Your task to perform on an android device: change notification settings in the gmail app Image 0: 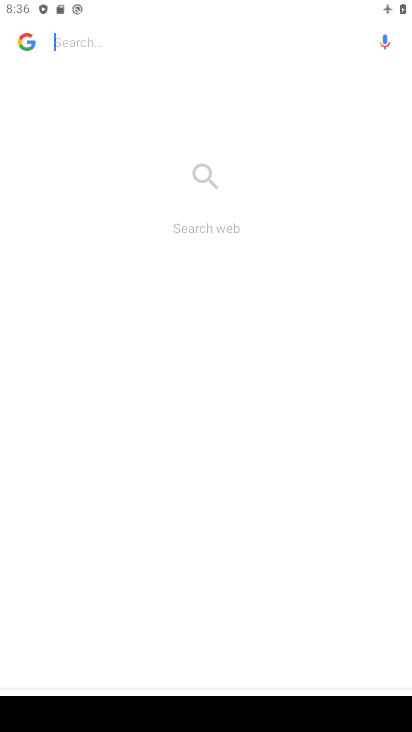
Step 0: press home button
Your task to perform on an android device: change notification settings in the gmail app Image 1: 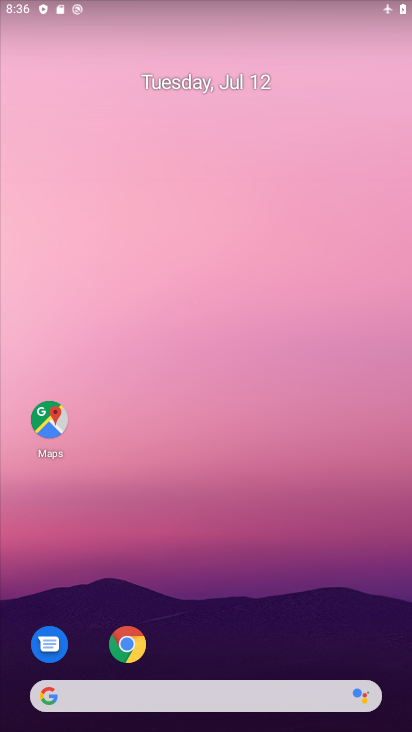
Step 1: drag from (198, 650) to (195, 225)
Your task to perform on an android device: change notification settings in the gmail app Image 2: 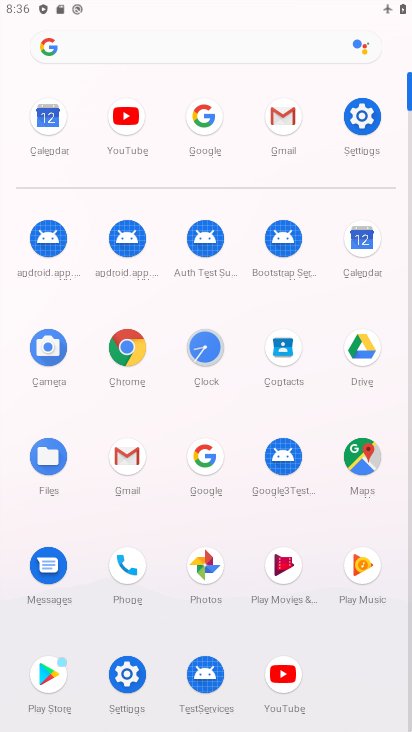
Step 2: click (279, 107)
Your task to perform on an android device: change notification settings in the gmail app Image 3: 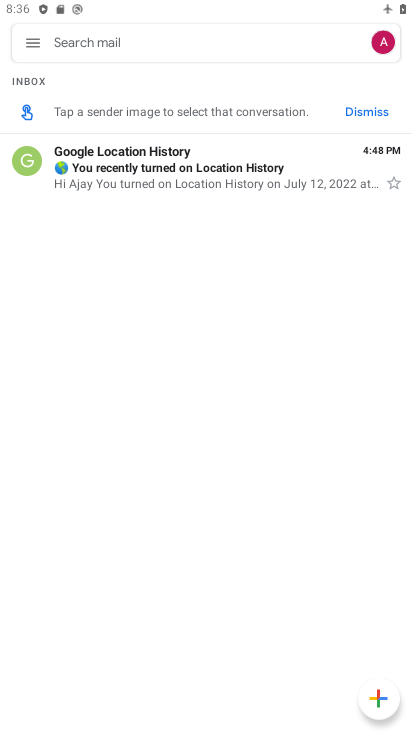
Step 3: click (39, 44)
Your task to perform on an android device: change notification settings in the gmail app Image 4: 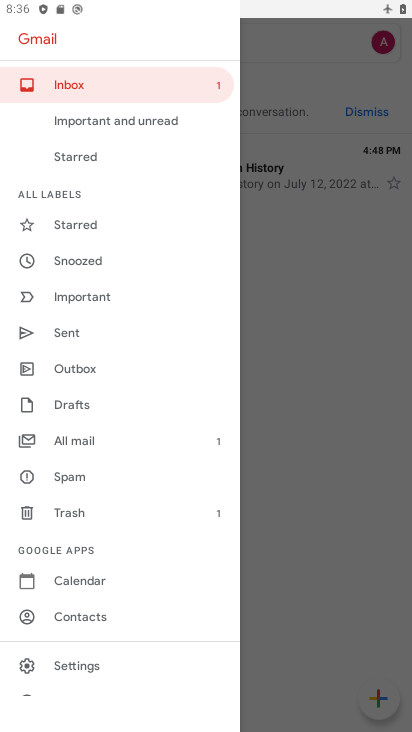
Step 4: click (113, 659)
Your task to perform on an android device: change notification settings in the gmail app Image 5: 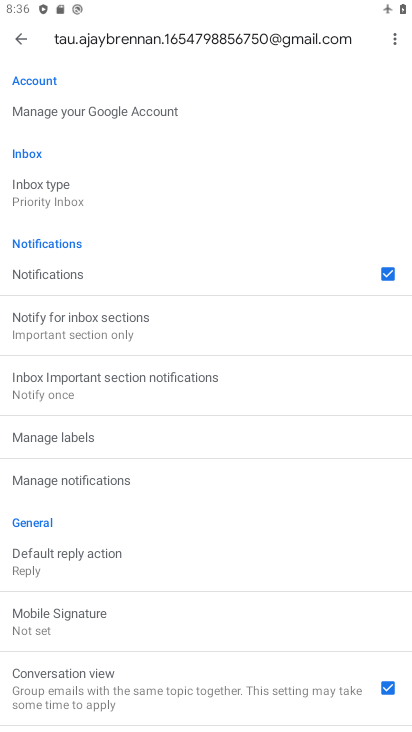
Step 5: click (127, 486)
Your task to perform on an android device: change notification settings in the gmail app Image 6: 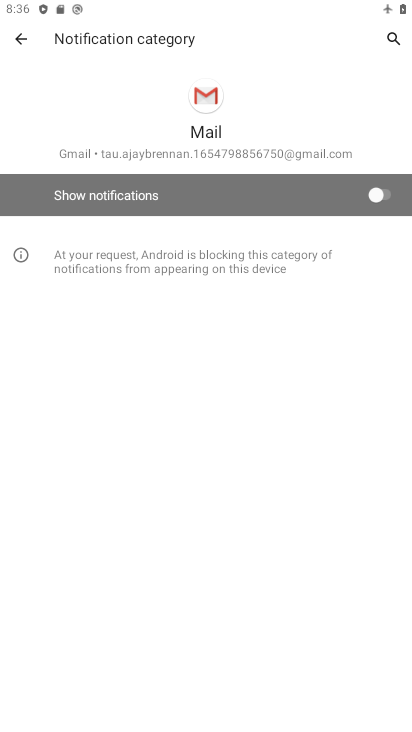
Step 6: click (380, 187)
Your task to perform on an android device: change notification settings in the gmail app Image 7: 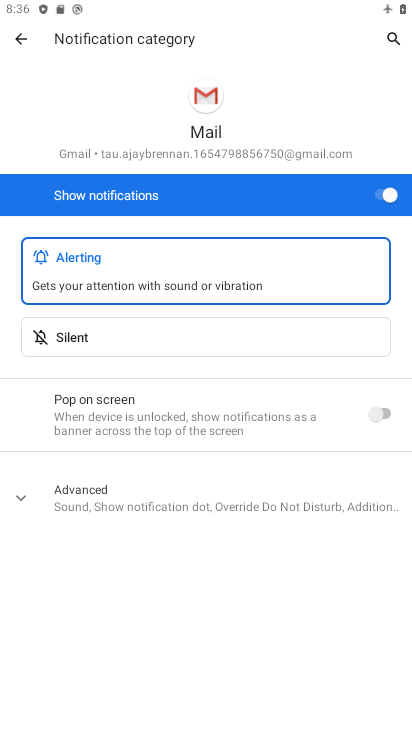
Step 7: task complete